Your task to perform on an android device: Go to CNN.com Image 0: 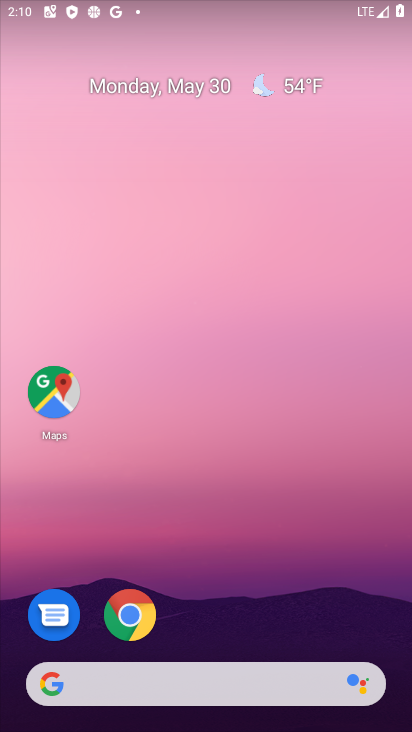
Step 0: click (132, 630)
Your task to perform on an android device: Go to CNN.com Image 1: 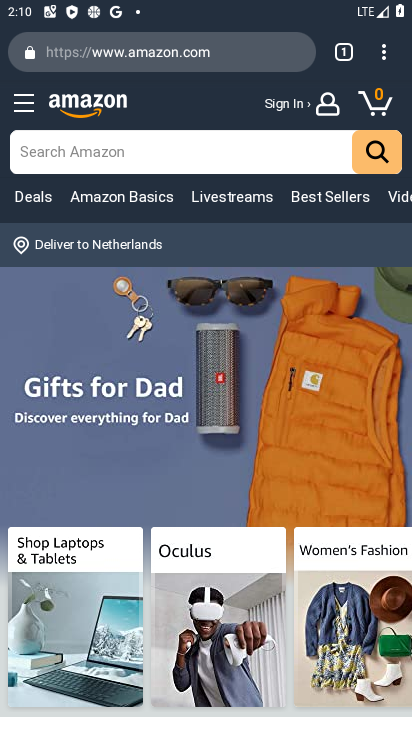
Step 1: click (339, 50)
Your task to perform on an android device: Go to CNN.com Image 2: 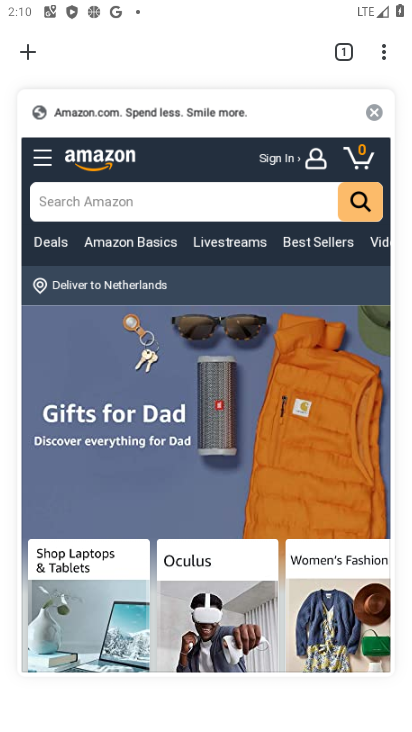
Step 2: click (369, 106)
Your task to perform on an android device: Go to CNN.com Image 3: 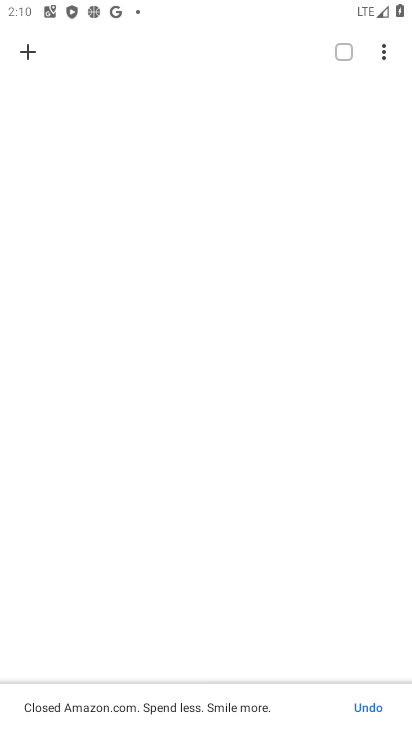
Step 3: click (33, 41)
Your task to perform on an android device: Go to CNN.com Image 4: 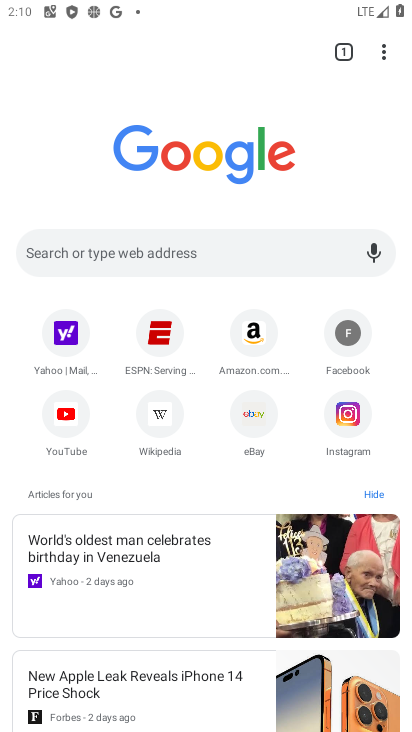
Step 4: click (242, 251)
Your task to perform on an android device: Go to CNN.com Image 5: 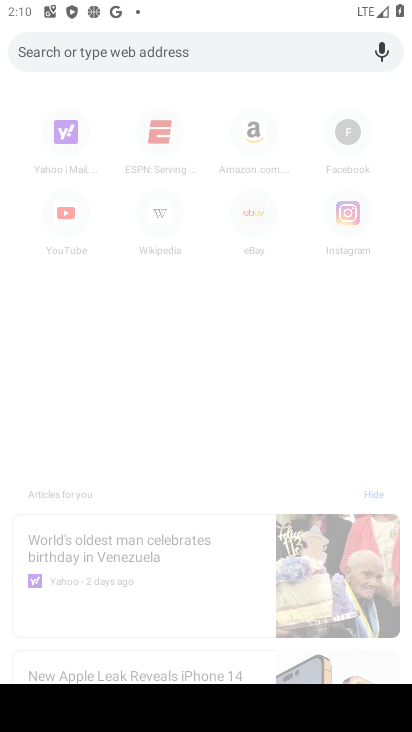
Step 5: type "cnn"
Your task to perform on an android device: Go to CNN.com Image 6: 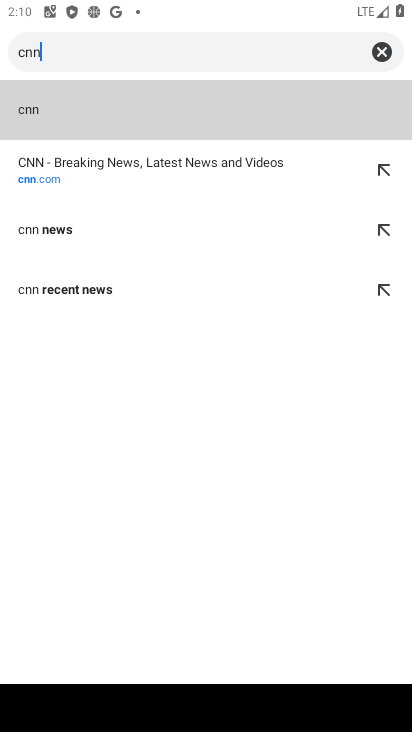
Step 6: click (215, 160)
Your task to perform on an android device: Go to CNN.com Image 7: 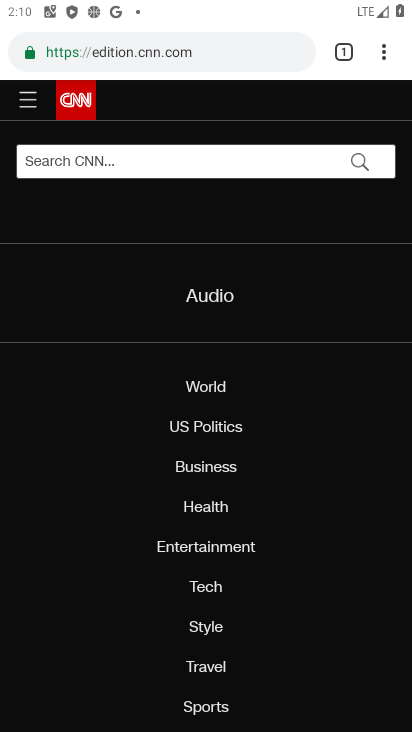
Step 7: task complete